Your task to perform on an android device: Open Reddit.com Image 0: 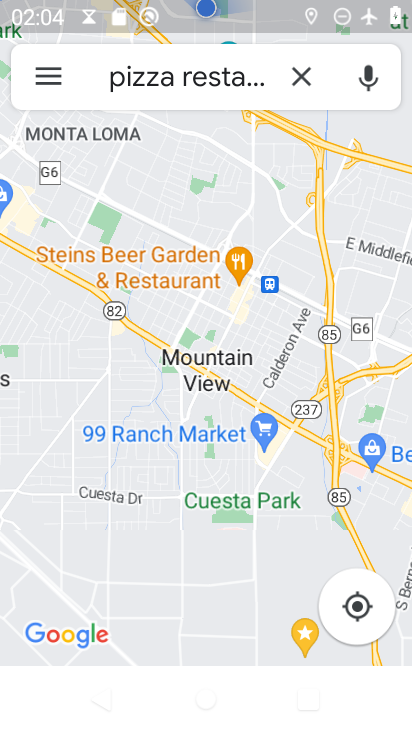
Step 0: press home button
Your task to perform on an android device: Open Reddit.com Image 1: 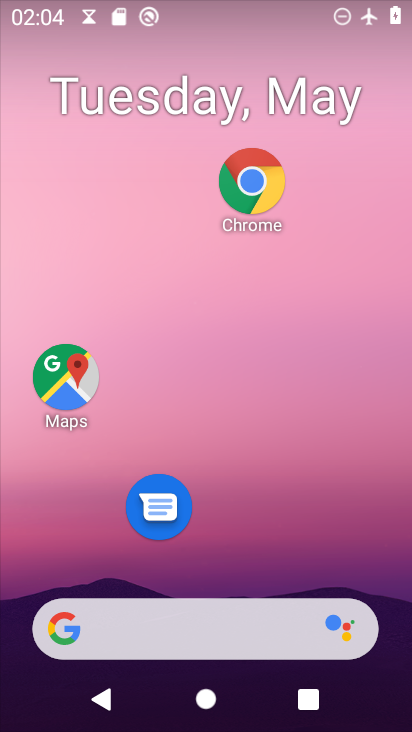
Step 1: drag from (267, 565) to (259, 334)
Your task to perform on an android device: Open Reddit.com Image 2: 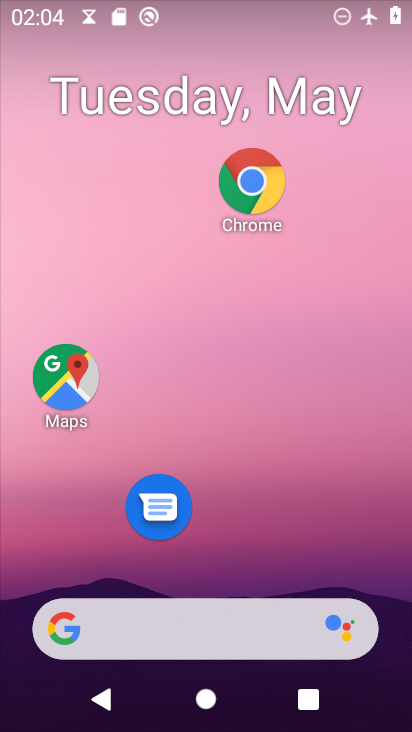
Step 2: drag from (291, 549) to (301, 229)
Your task to perform on an android device: Open Reddit.com Image 3: 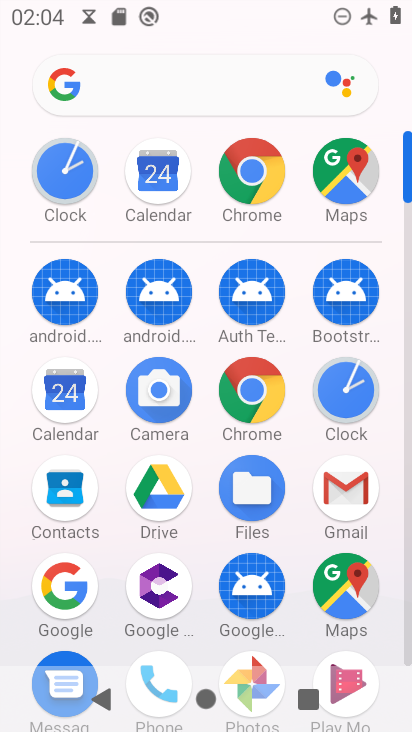
Step 3: click (253, 159)
Your task to perform on an android device: Open Reddit.com Image 4: 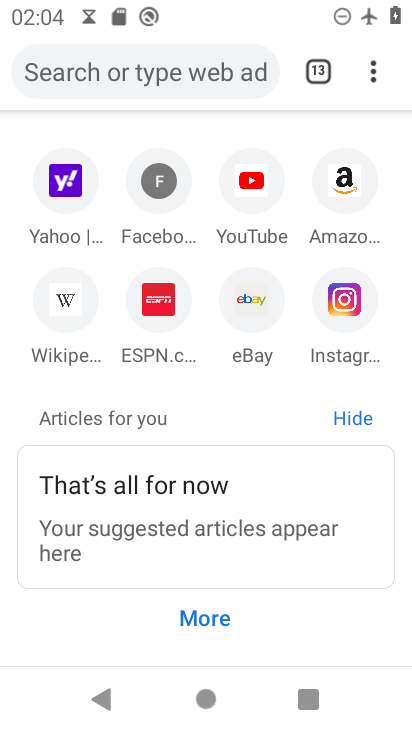
Step 4: click (184, 55)
Your task to perform on an android device: Open Reddit.com Image 5: 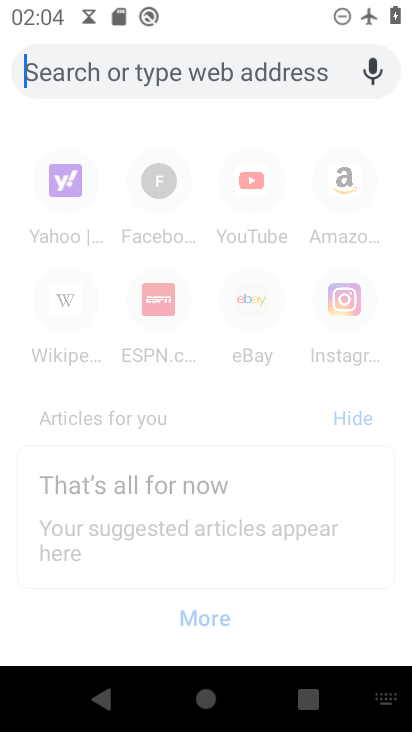
Step 5: type "Reddit.com"
Your task to perform on an android device: Open Reddit.com Image 6: 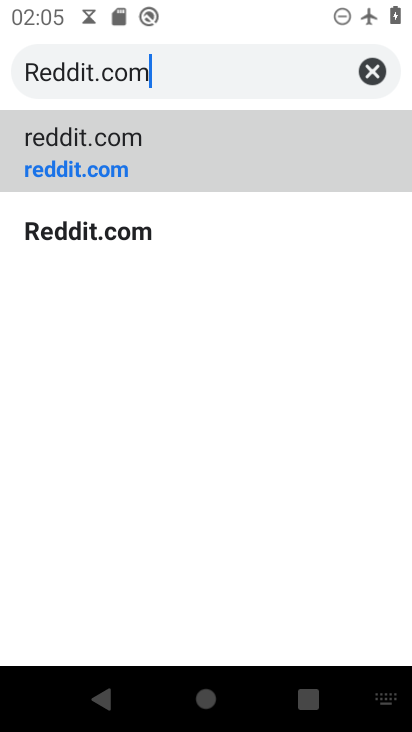
Step 6: click (131, 156)
Your task to perform on an android device: Open Reddit.com Image 7: 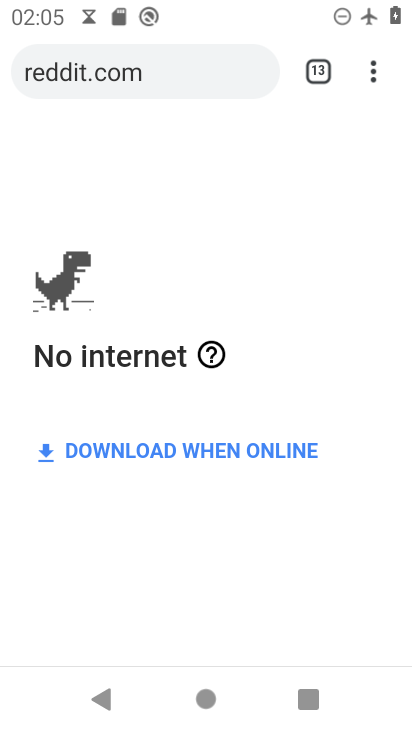
Step 7: task complete